Your task to perform on an android device: open sync settings in chrome Image 0: 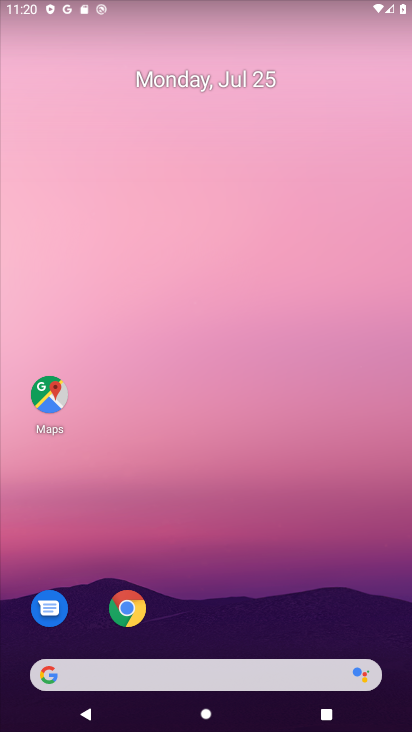
Step 0: click (138, 618)
Your task to perform on an android device: open sync settings in chrome Image 1: 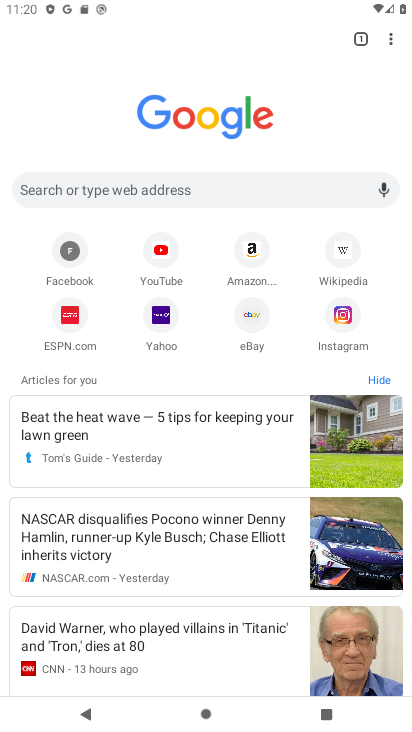
Step 1: click (395, 42)
Your task to perform on an android device: open sync settings in chrome Image 2: 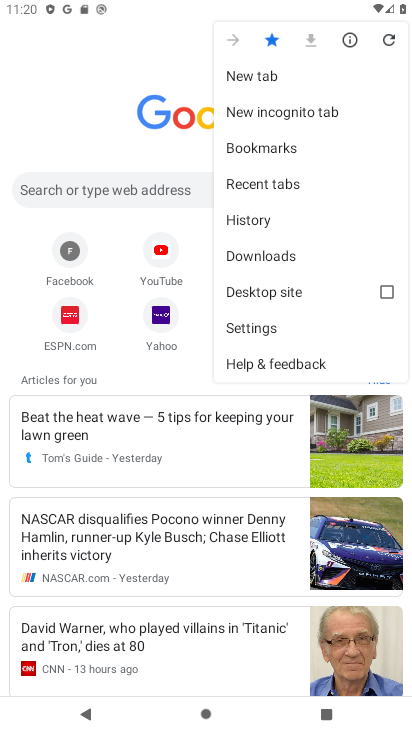
Step 2: click (270, 338)
Your task to perform on an android device: open sync settings in chrome Image 3: 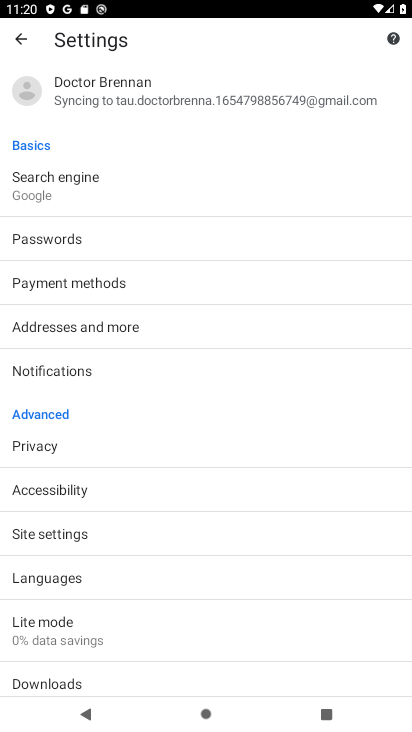
Step 3: click (134, 94)
Your task to perform on an android device: open sync settings in chrome Image 4: 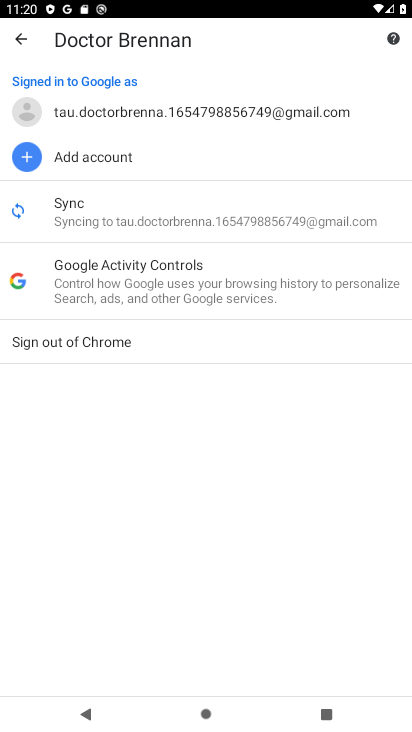
Step 4: click (107, 211)
Your task to perform on an android device: open sync settings in chrome Image 5: 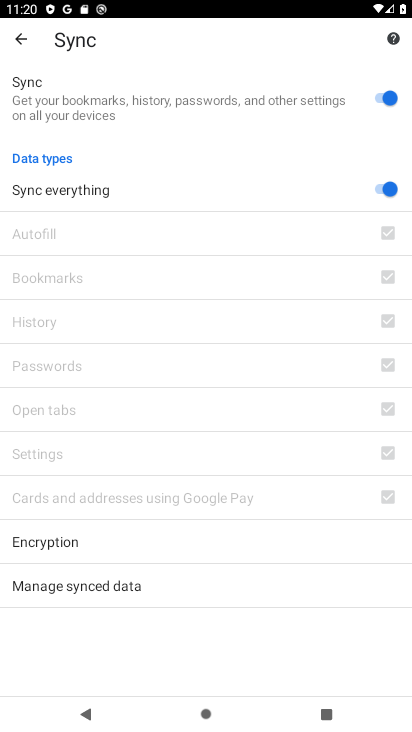
Step 5: task complete